Your task to perform on an android device: Search for pizza restaurants on Maps Image 0: 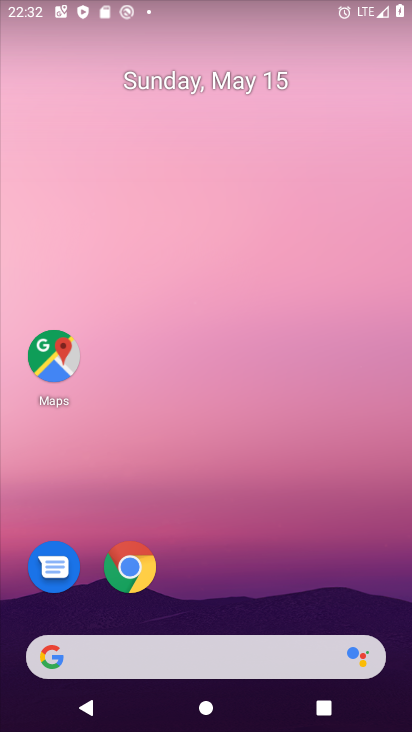
Step 0: click (58, 363)
Your task to perform on an android device: Search for pizza restaurants on Maps Image 1: 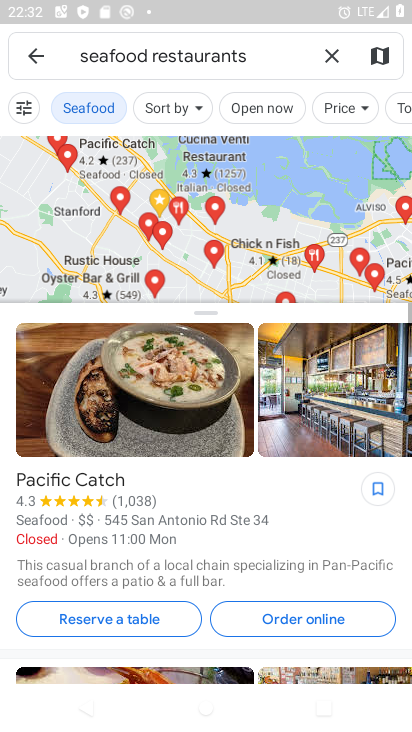
Step 1: click (333, 52)
Your task to perform on an android device: Search for pizza restaurants on Maps Image 2: 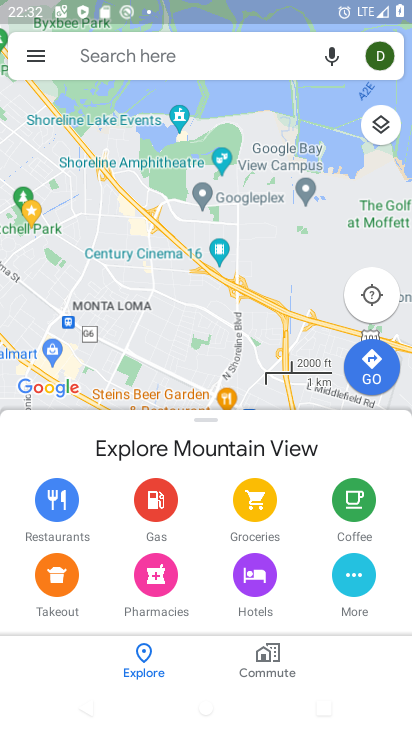
Step 2: click (285, 53)
Your task to perform on an android device: Search for pizza restaurants on Maps Image 3: 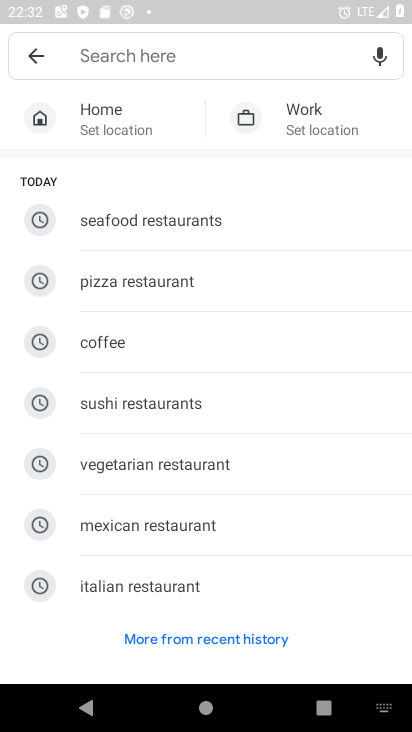
Step 3: click (128, 282)
Your task to perform on an android device: Search for pizza restaurants on Maps Image 4: 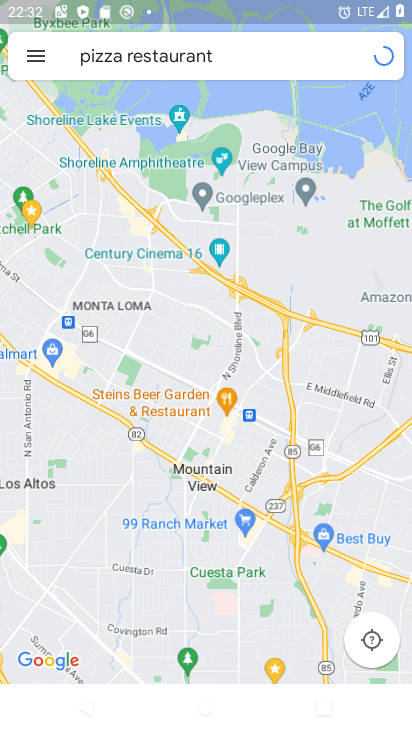
Step 4: task complete